Your task to perform on an android device: Search for sushi restaurants on Maps Image 0: 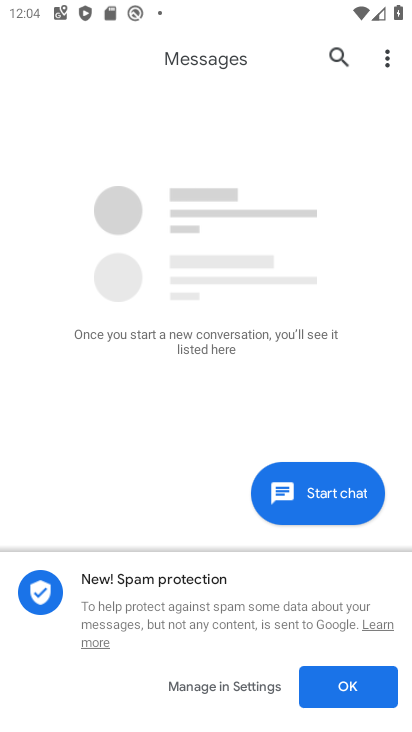
Step 0: press home button
Your task to perform on an android device: Search for sushi restaurants on Maps Image 1: 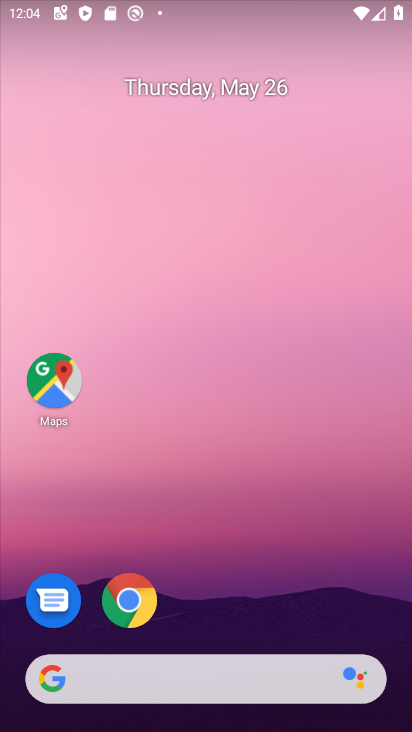
Step 1: click (53, 393)
Your task to perform on an android device: Search for sushi restaurants on Maps Image 2: 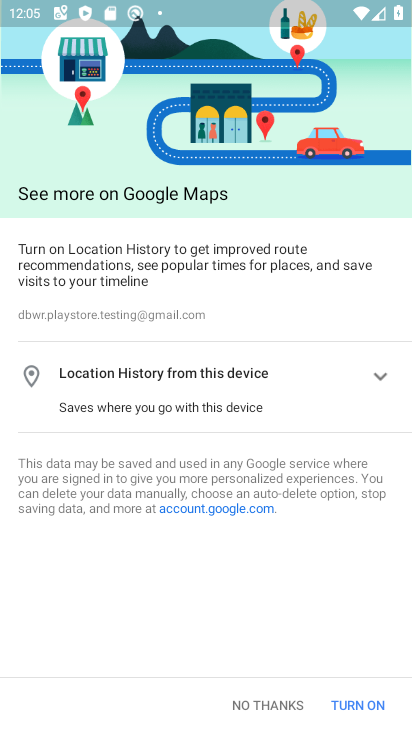
Step 2: click (367, 698)
Your task to perform on an android device: Search for sushi restaurants on Maps Image 3: 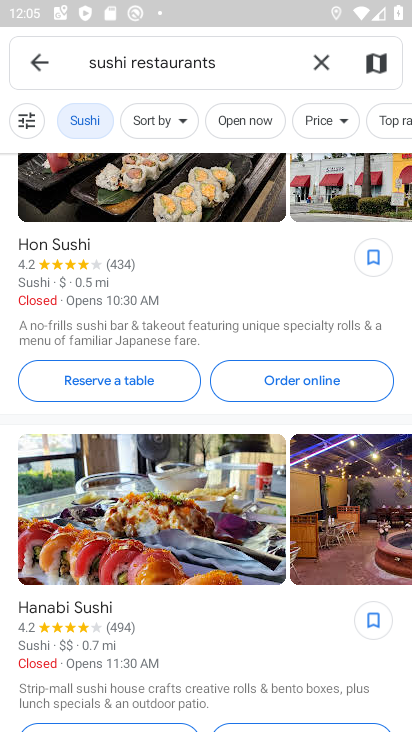
Step 3: task complete